Your task to perform on an android device: turn on airplane mode Image 0: 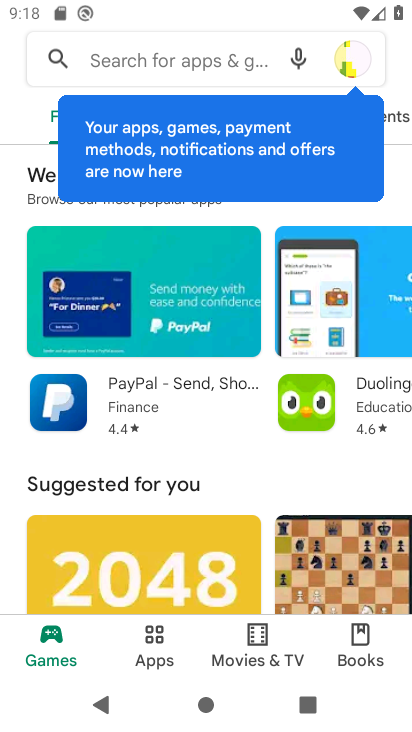
Step 0: press home button
Your task to perform on an android device: turn on airplane mode Image 1: 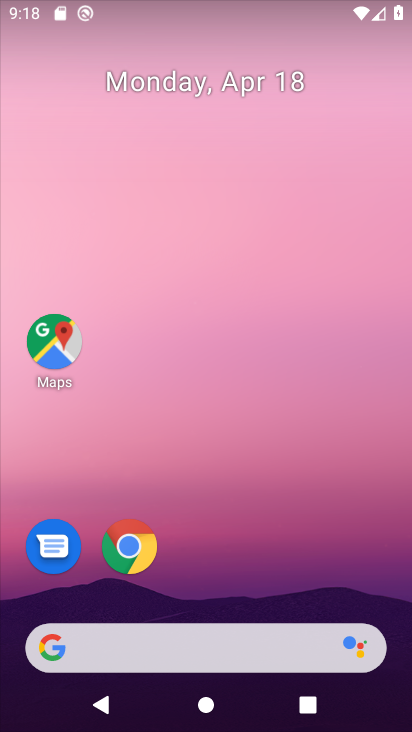
Step 1: drag from (325, 558) to (368, 178)
Your task to perform on an android device: turn on airplane mode Image 2: 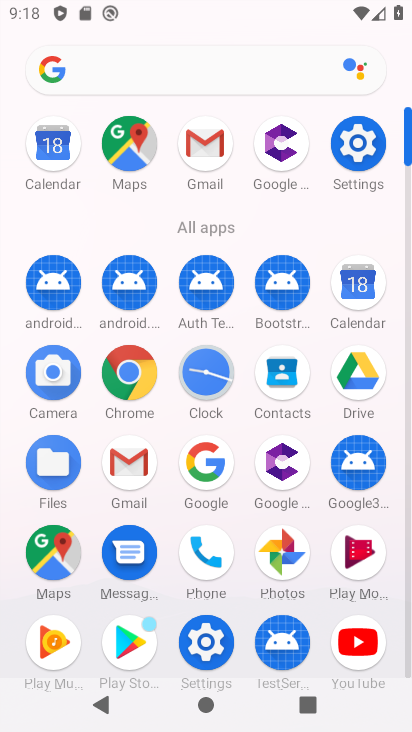
Step 2: click (355, 155)
Your task to perform on an android device: turn on airplane mode Image 3: 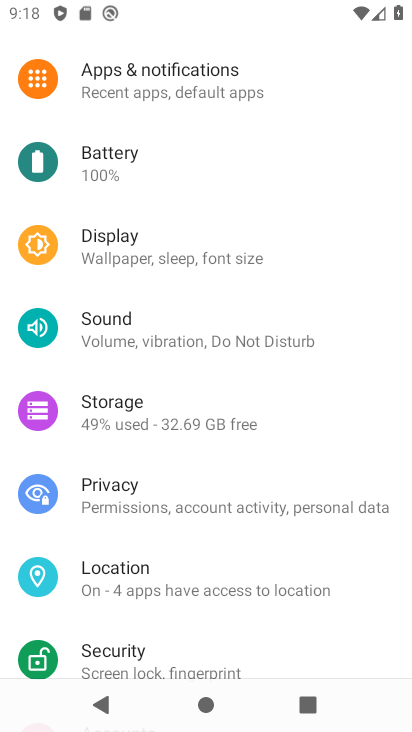
Step 3: drag from (223, 146) to (235, 525)
Your task to perform on an android device: turn on airplane mode Image 4: 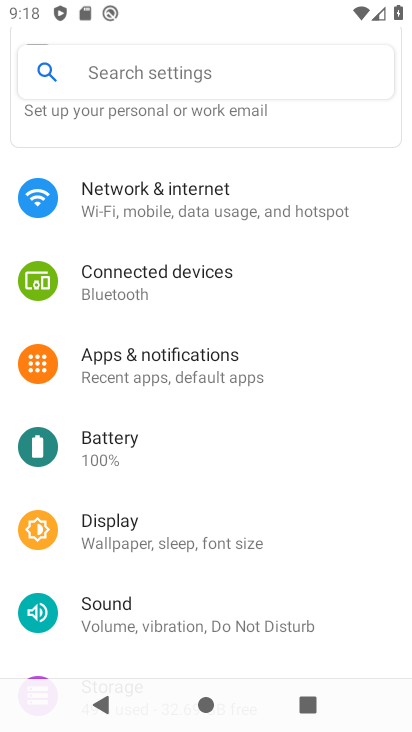
Step 4: click (211, 193)
Your task to perform on an android device: turn on airplane mode Image 5: 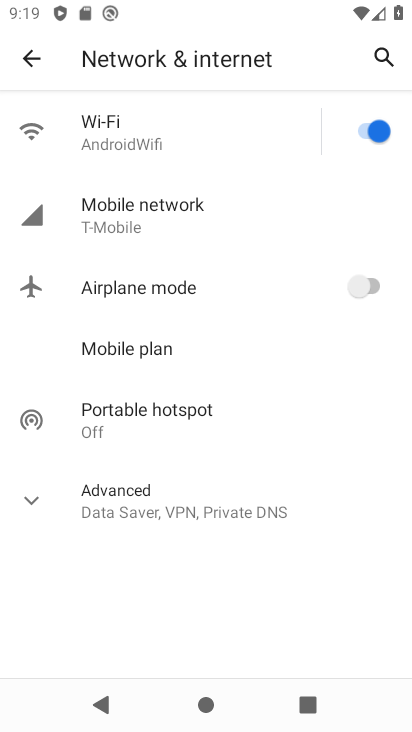
Step 5: click (347, 291)
Your task to perform on an android device: turn on airplane mode Image 6: 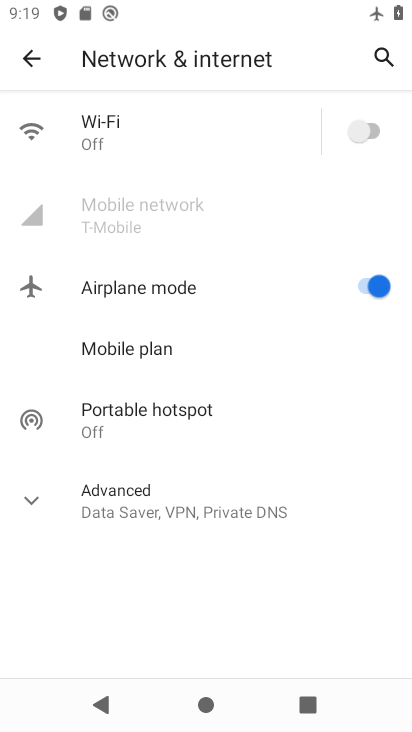
Step 6: task complete